Your task to perform on an android device: Search for sushi restaurants on Maps Image 0: 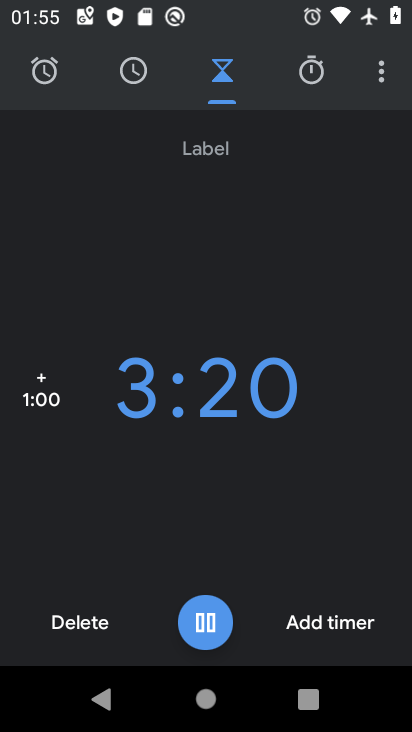
Step 0: press home button
Your task to perform on an android device: Search for sushi restaurants on Maps Image 1: 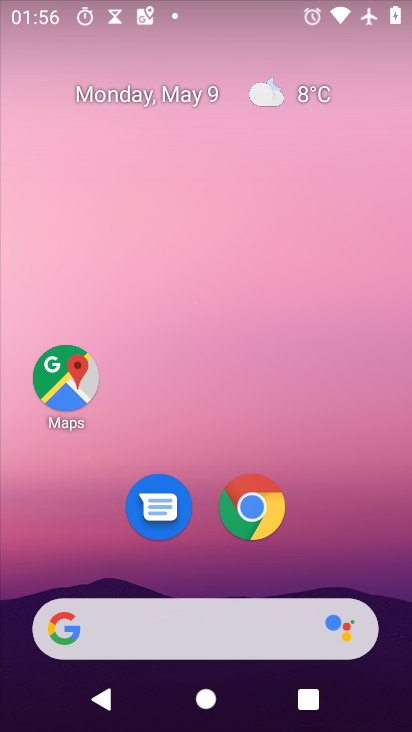
Step 1: drag from (231, 728) to (232, 219)
Your task to perform on an android device: Search for sushi restaurants on Maps Image 2: 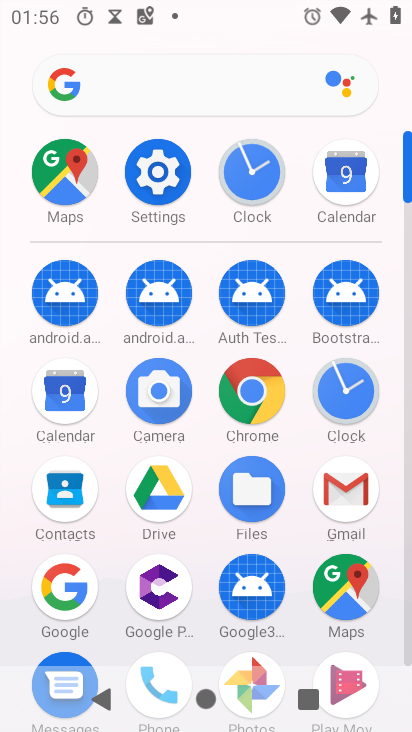
Step 2: click (342, 586)
Your task to perform on an android device: Search for sushi restaurants on Maps Image 3: 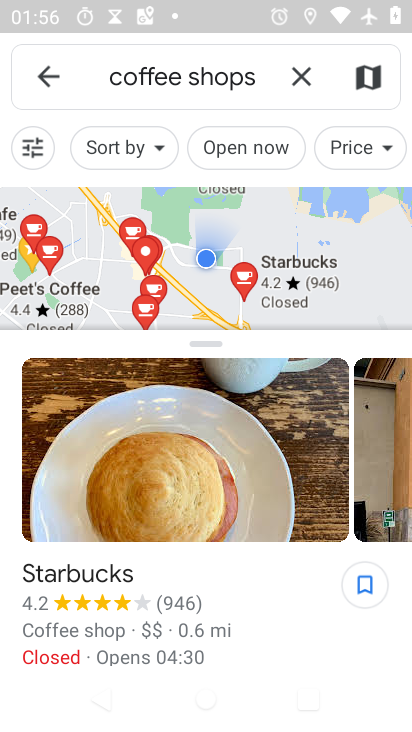
Step 3: click (296, 75)
Your task to perform on an android device: Search for sushi restaurants on Maps Image 4: 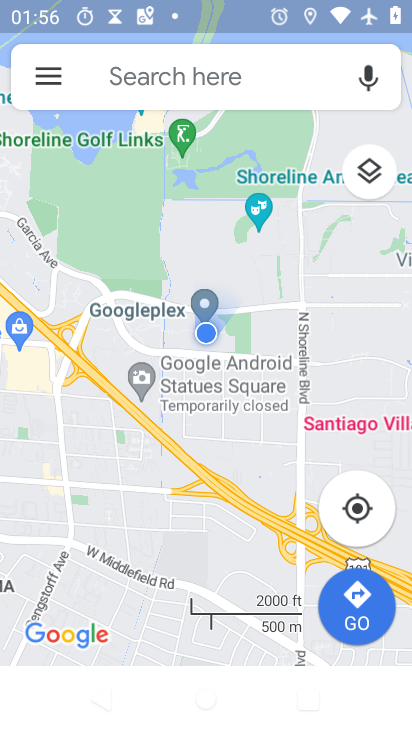
Step 4: click (226, 79)
Your task to perform on an android device: Search for sushi restaurants on Maps Image 5: 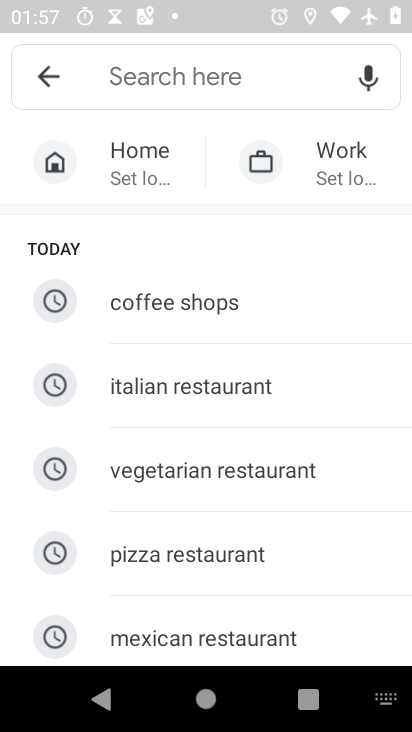
Step 5: type "sushi restaurants"
Your task to perform on an android device: Search for sushi restaurants on Maps Image 6: 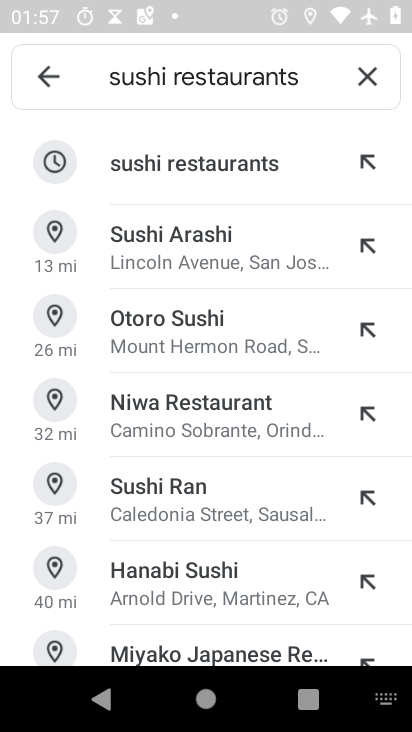
Step 6: click (243, 163)
Your task to perform on an android device: Search for sushi restaurants on Maps Image 7: 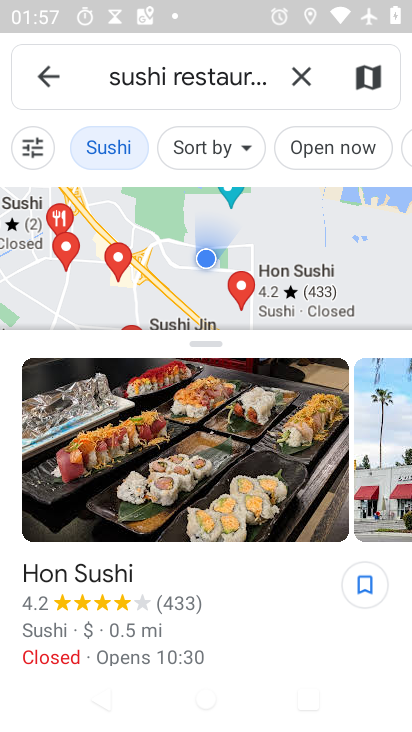
Step 7: task complete